Your task to perform on an android device: turn on improve location accuracy Image 0: 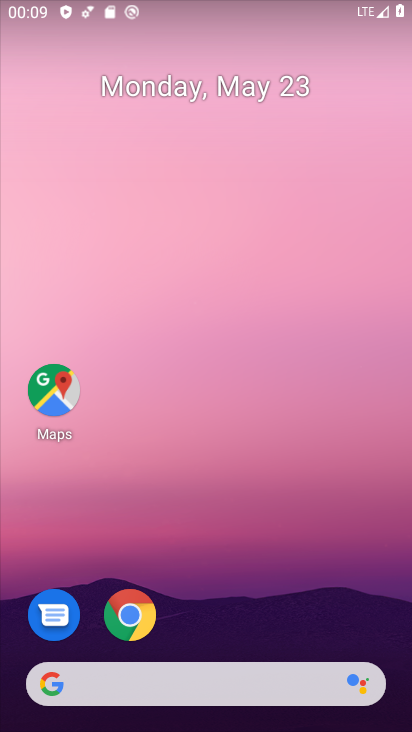
Step 0: drag from (308, 573) to (294, 36)
Your task to perform on an android device: turn on improve location accuracy Image 1: 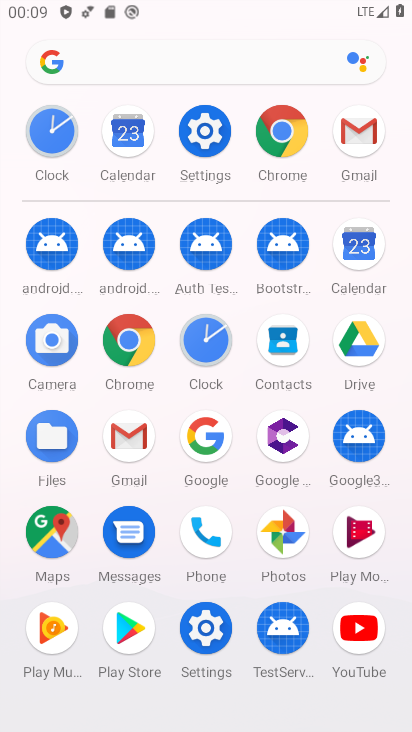
Step 1: click (216, 135)
Your task to perform on an android device: turn on improve location accuracy Image 2: 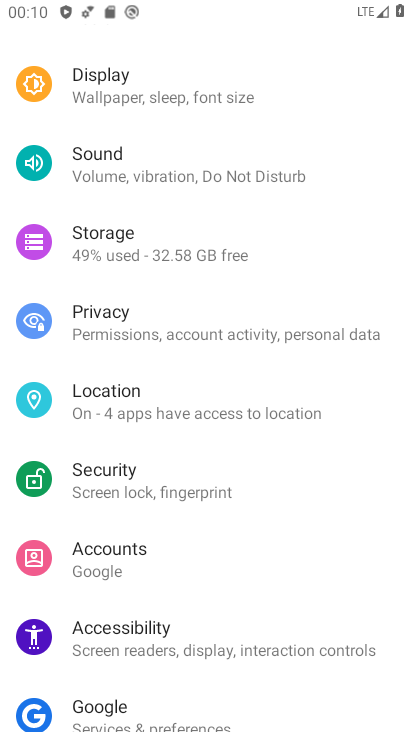
Step 2: click (160, 396)
Your task to perform on an android device: turn on improve location accuracy Image 3: 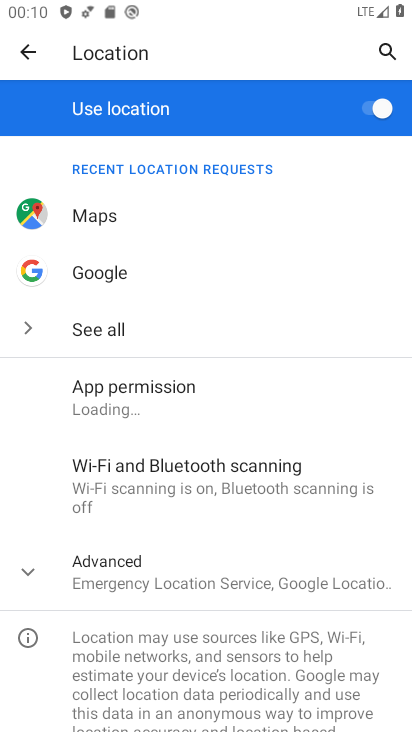
Step 3: click (149, 574)
Your task to perform on an android device: turn on improve location accuracy Image 4: 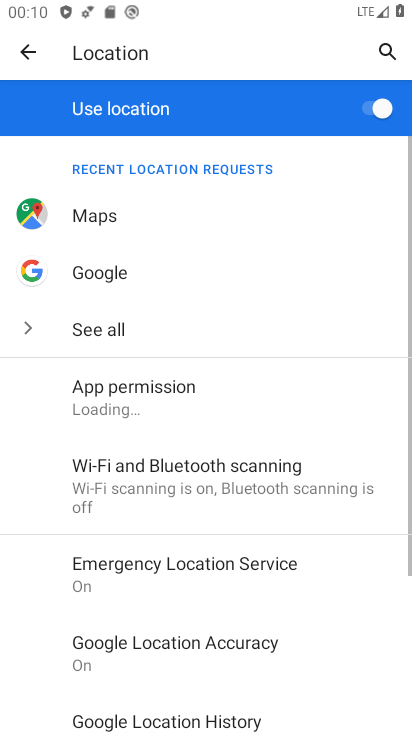
Step 4: drag from (153, 571) to (210, 170)
Your task to perform on an android device: turn on improve location accuracy Image 5: 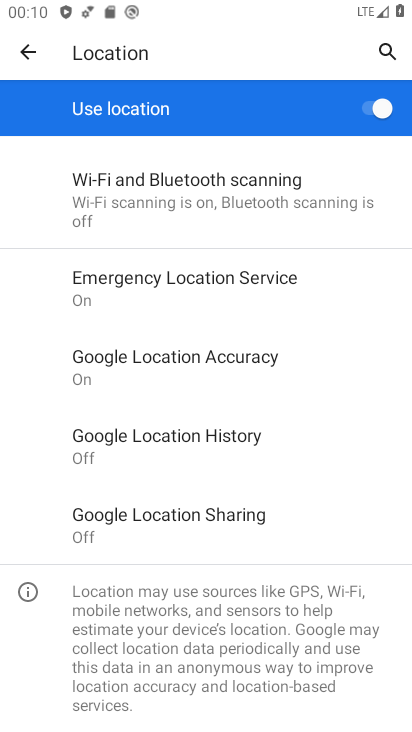
Step 5: click (179, 356)
Your task to perform on an android device: turn on improve location accuracy Image 6: 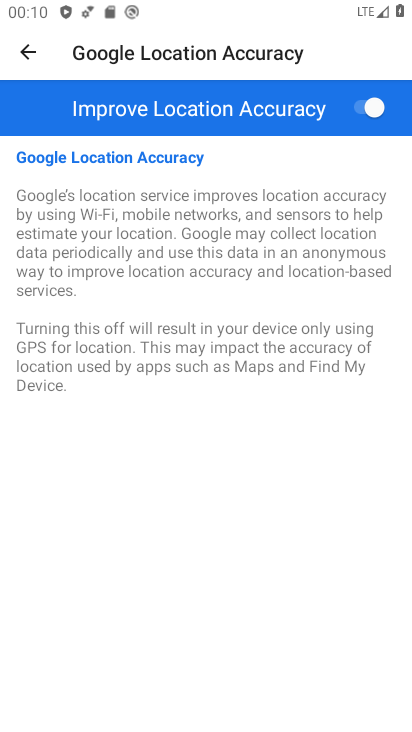
Step 6: task complete